Your task to perform on an android device: snooze an email in the gmail app Image 0: 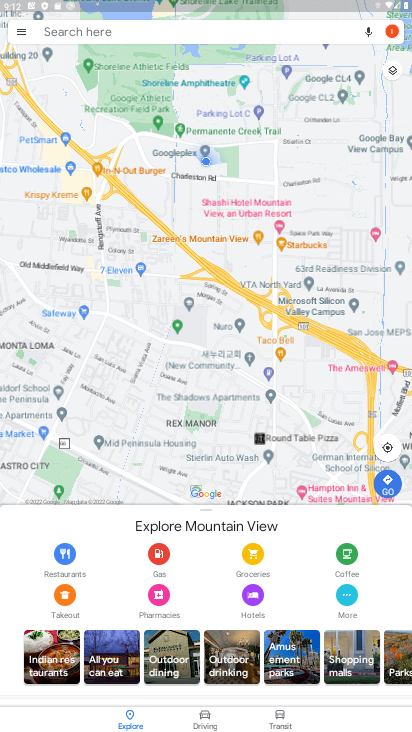
Step 0: press home button
Your task to perform on an android device: snooze an email in the gmail app Image 1: 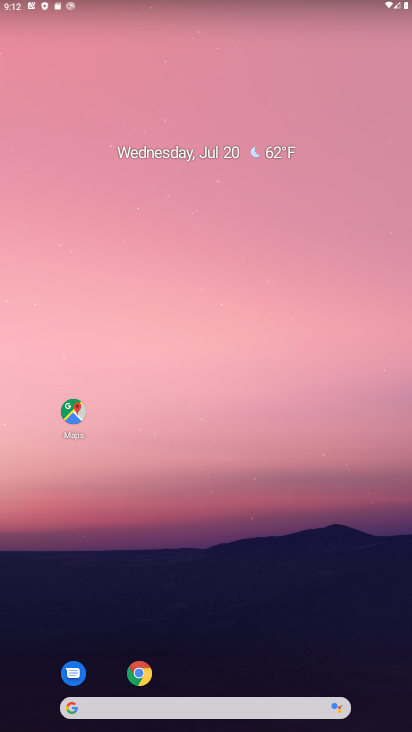
Step 1: drag from (395, 679) to (349, 33)
Your task to perform on an android device: snooze an email in the gmail app Image 2: 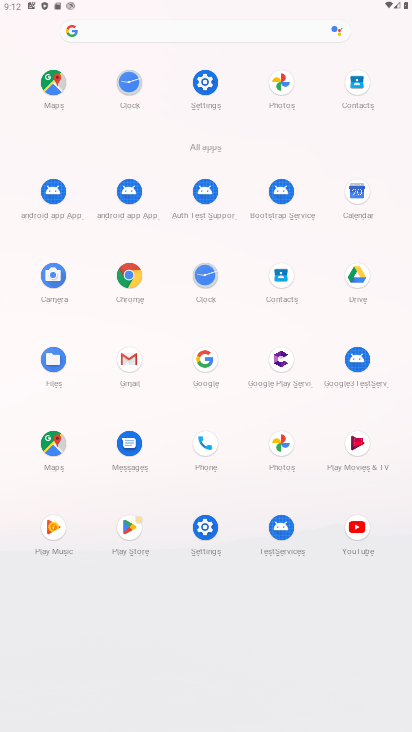
Step 2: click (130, 363)
Your task to perform on an android device: snooze an email in the gmail app Image 3: 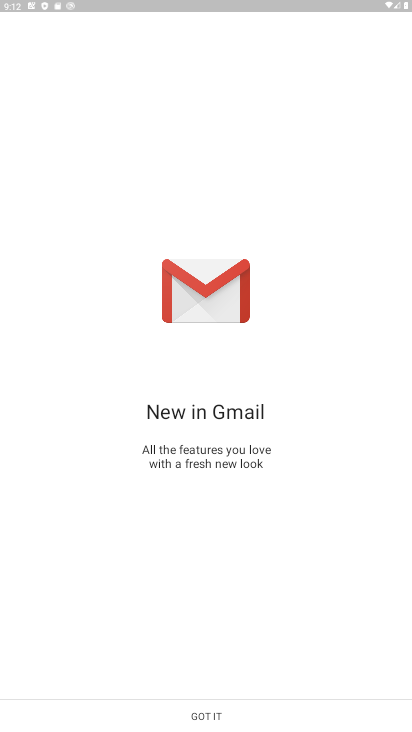
Step 3: click (206, 708)
Your task to perform on an android device: snooze an email in the gmail app Image 4: 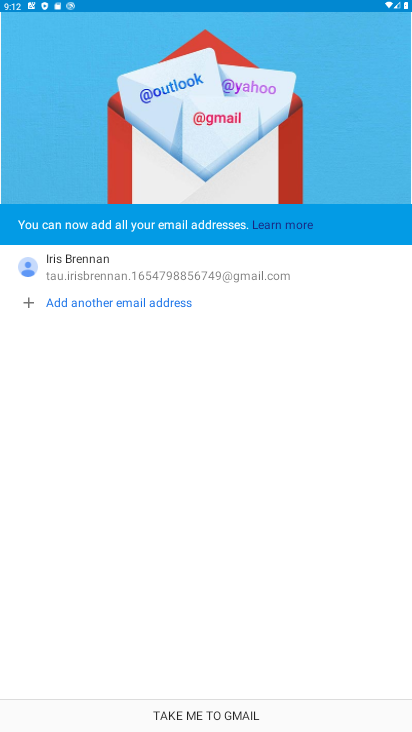
Step 4: click (206, 708)
Your task to perform on an android device: snooze an email in the gmail app Image 5: 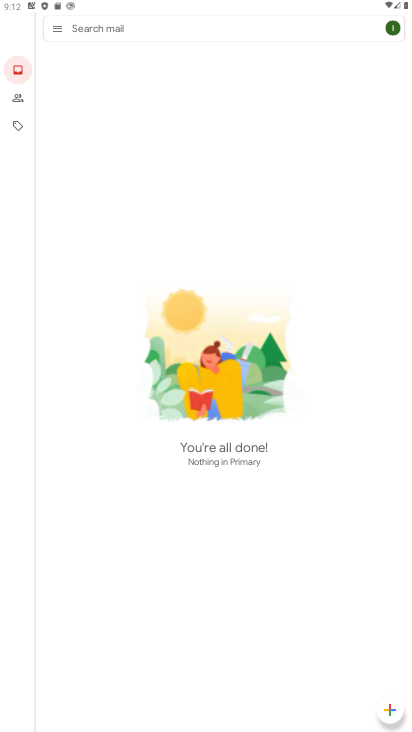
Step 5: click (57, 27)
Your task to perform on an android device: snooze an email in the gmail app Image 6: 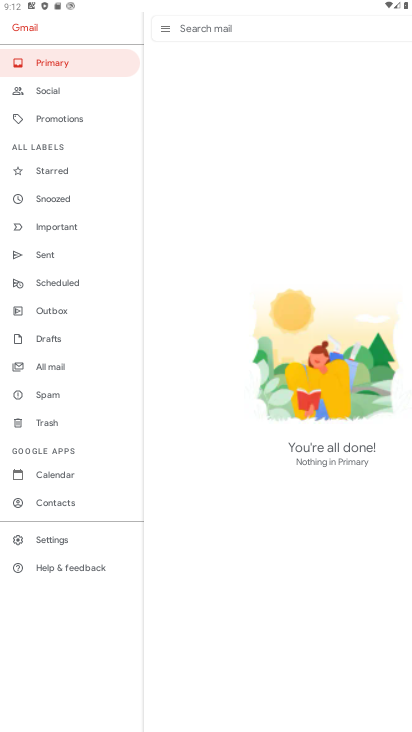
Step 6: task complete